Your task to perform on an android device: see tabs open on other devices in the chrome app Image 0: 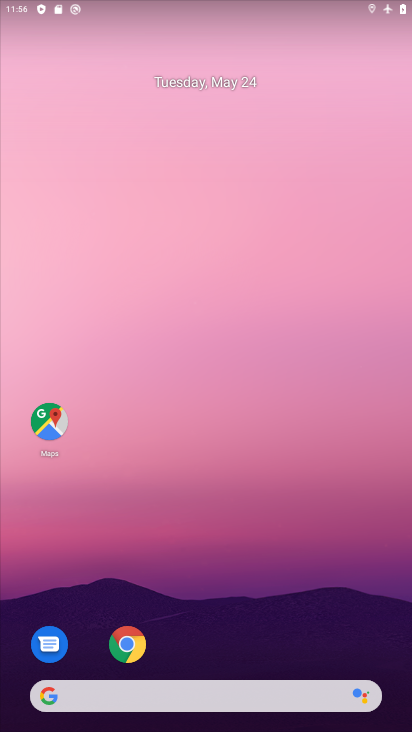
Step 0: click (131, 634)
Your task to perform on an android device: see tabs open on other devices in the chrome app Image 1: 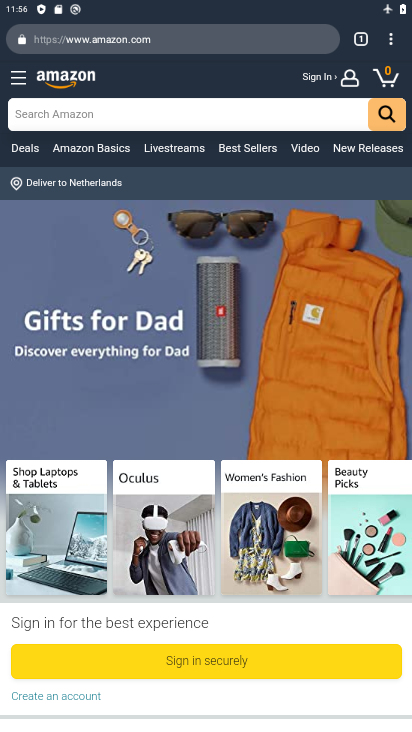
Step 1: click (393, 43)
Your task to perform on an android device: see tabs open on other devices in the chrome app Image 2: 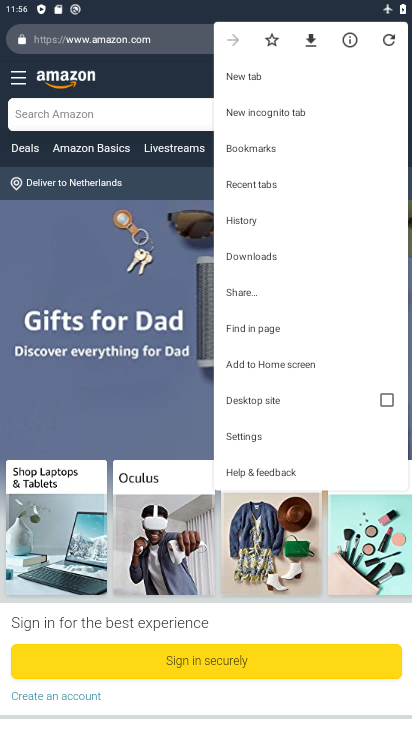
Step 2: click (251, 181)
Your task to perform on an android device: see tabs open on other devices in the chrome app Image 3: 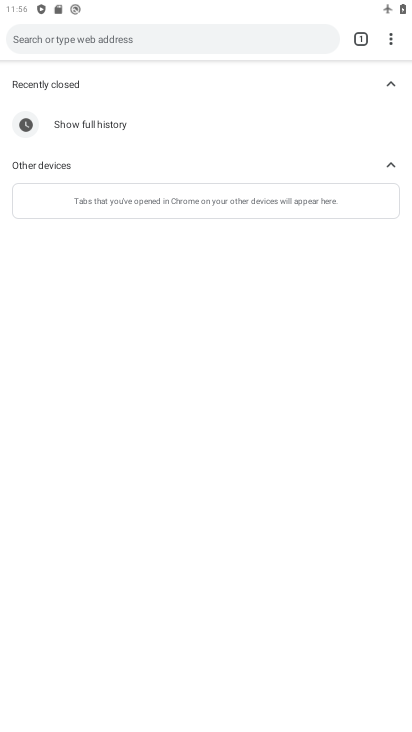
Step 3: task complete